Your task to perform on an android device: Show me the alarms in the clock app Image 0: 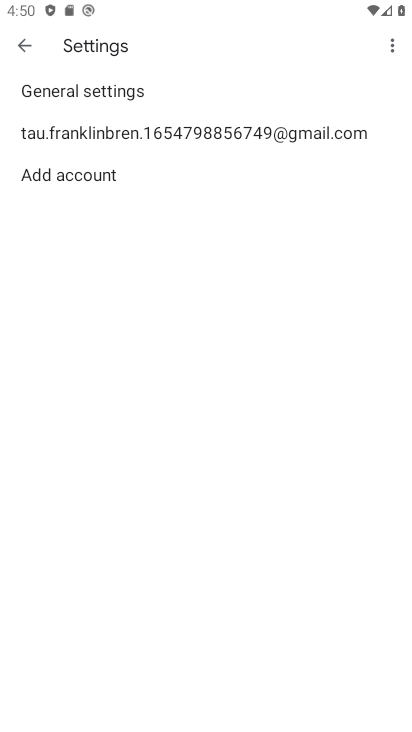
Step 0: press home button
Your task to perform on an android device: Show me the alarms in the clock app Image 1: 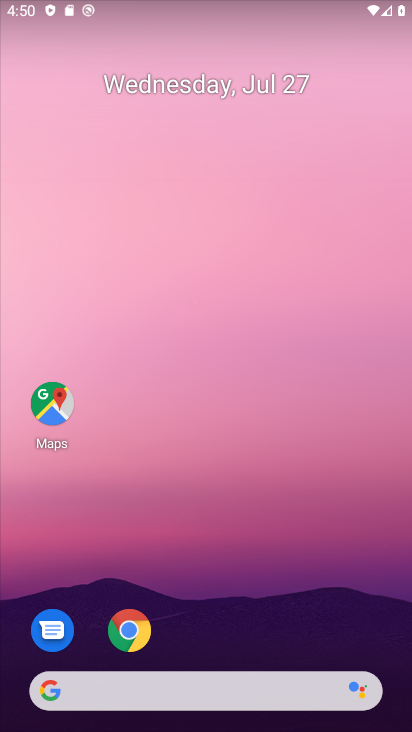
Step 1: drag from (272, 647) to (218, 130)
Your task to perform on an android device: Show me the alarms in the clock app Image 2: 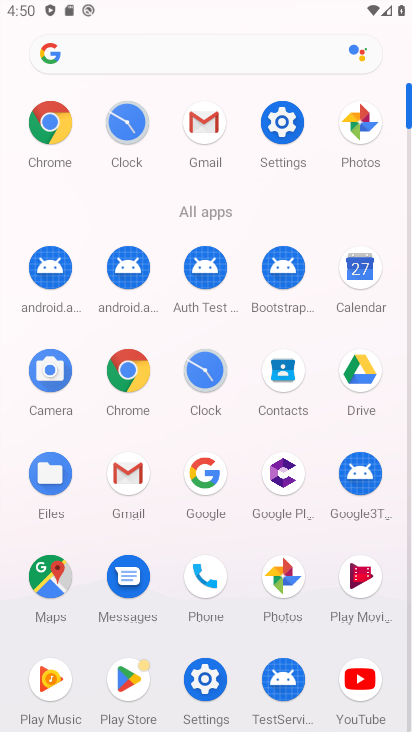
Step 2: click (127, 121)
Your task to perform on an android device: Show me the alarms in the clock app Image 3: 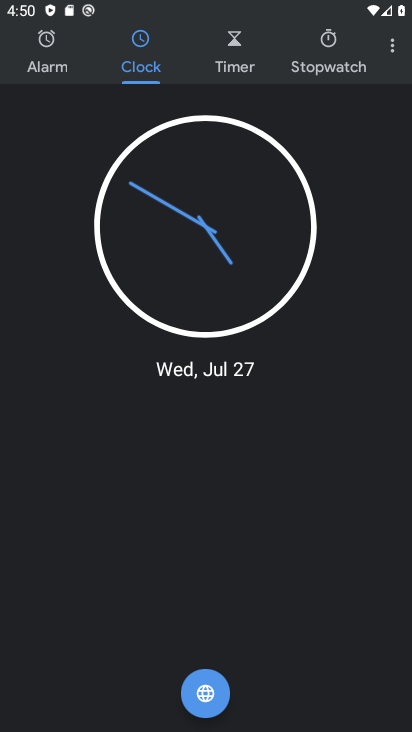
Step 3: click (38, 52)
Your task to perform on an android device: Show me the alarms in the clock app Image 4: 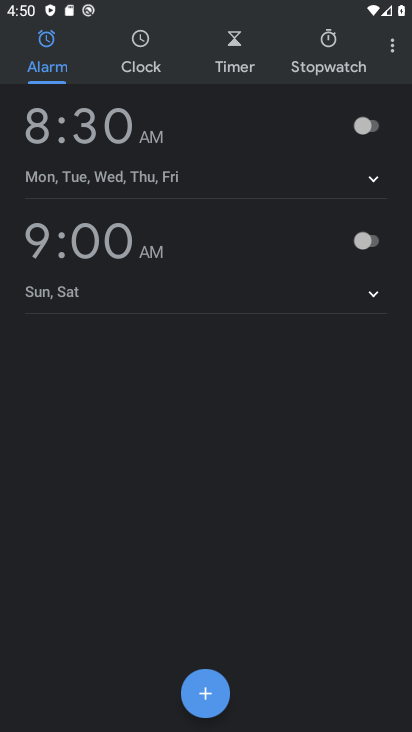
Step 4: task complete